Your task to perform on an android device: What's the weather today? Image 0: 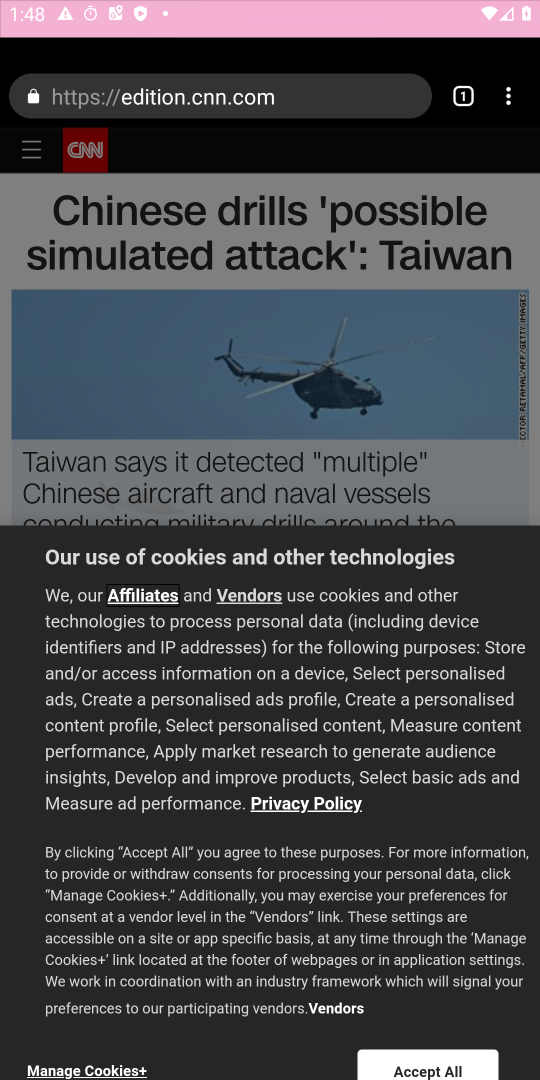
Step 0: press home button
Your task to perform on an android device: What's the weather today? Image 1: 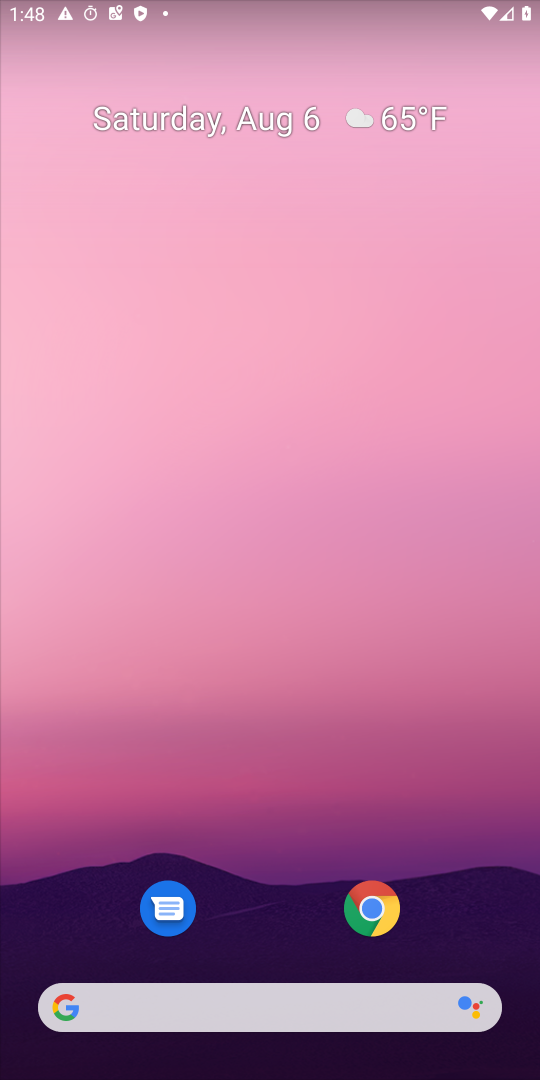
Step 1: click (252, 1013)
Your task to perform on an android device: What's the weather today? Image 2: 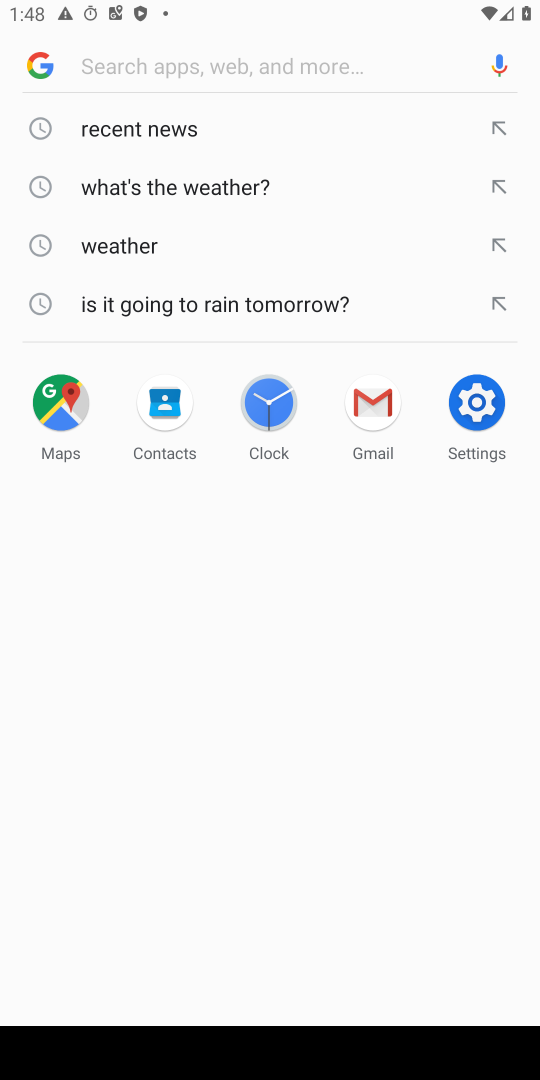
Step 2: type "what's the weather today"
Your task to perform on an android device: What's the weather today? Image 3: 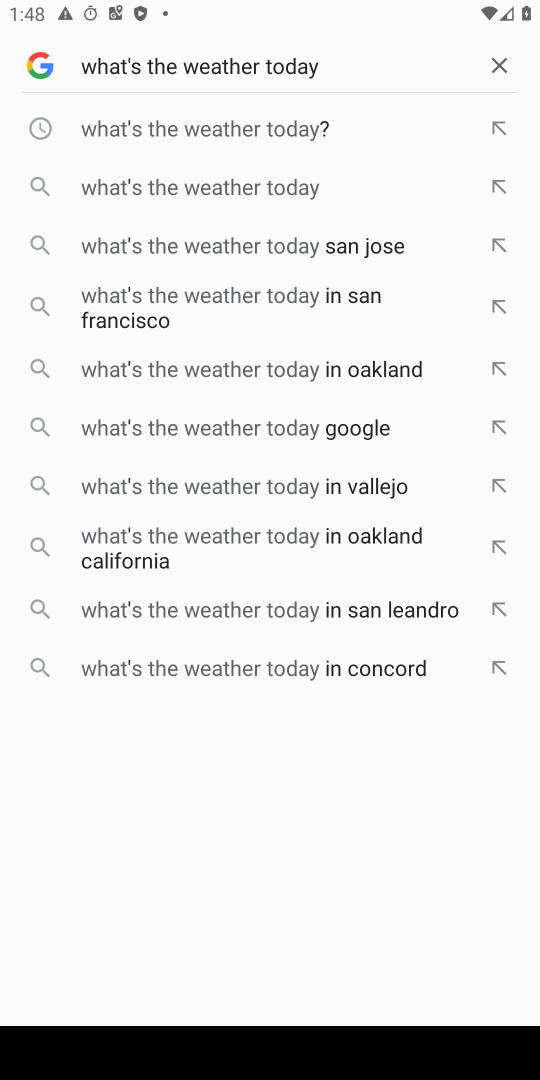
Step 3: click (270, 131)
Your task to perform on an android device: What's the weather today? Image 4: 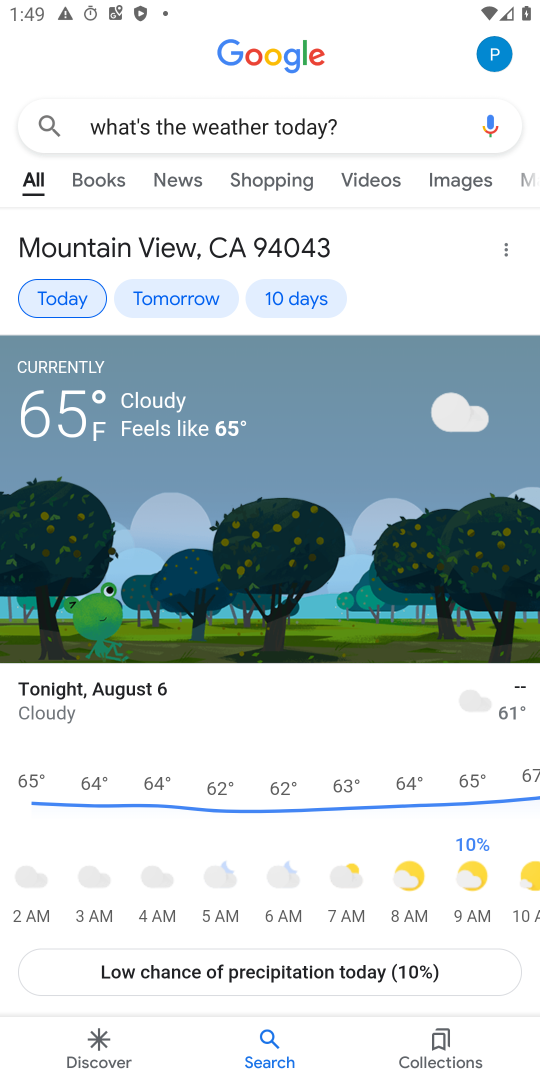
Step 4: task complete